Your task to perform on an android device: change the clock display to digital Image 0: 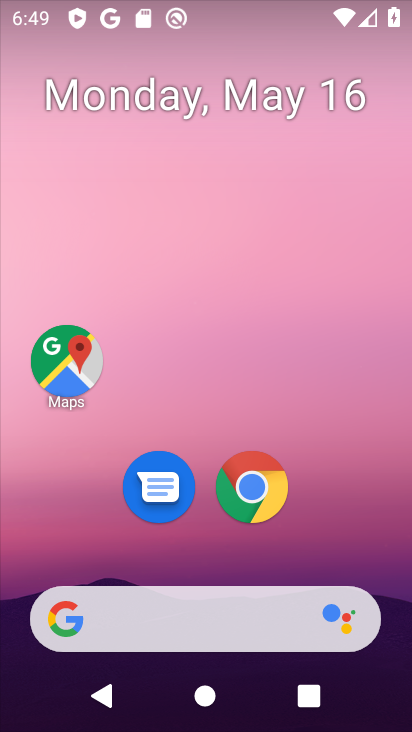
Step 0: drag from (342, 540) to (279, 3)
Your task to perform on an android device: change the clock display to digital Image 1: 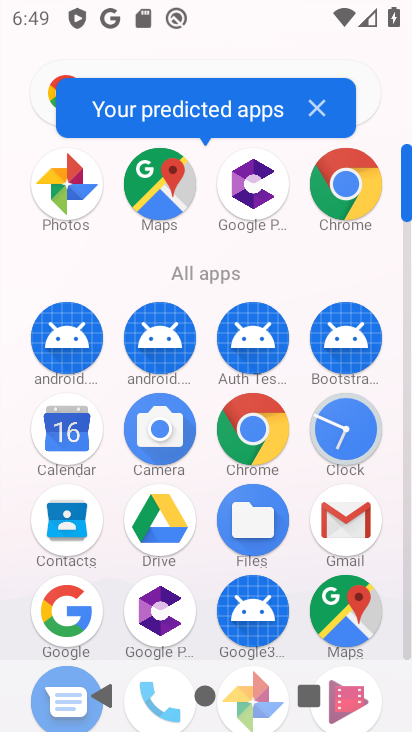
Step 1: click (354, 421)
Your task to perform on an android device: change the clock display to digital Image 2: 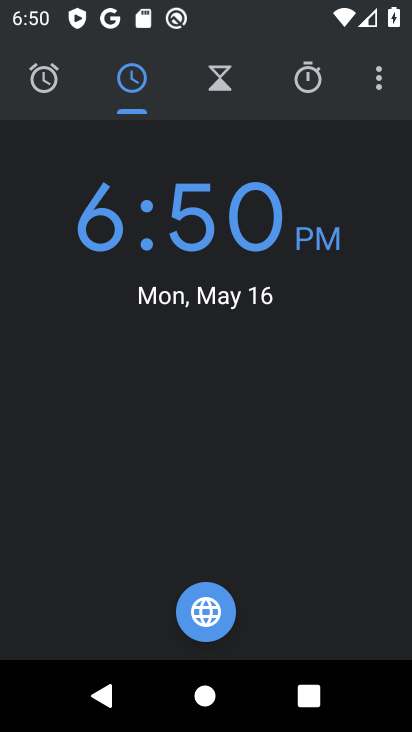
Step 2: click (378, 80)
Your task to perform on an android device: change the clock display to digital Image 3: 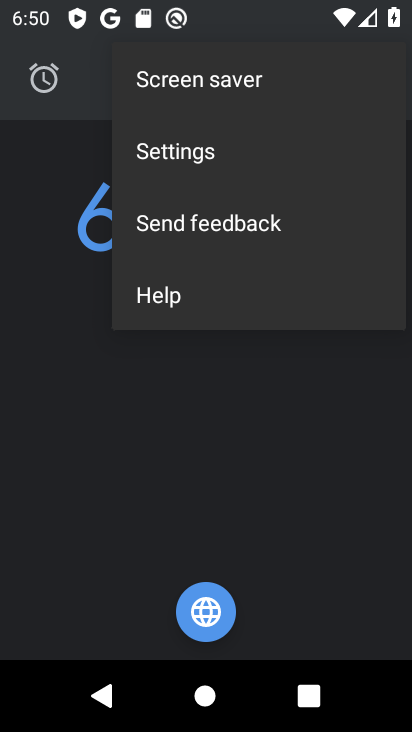
Step 3: click (230, 161)
Your task to perform on an android device: change the clock display to digital Image 4: 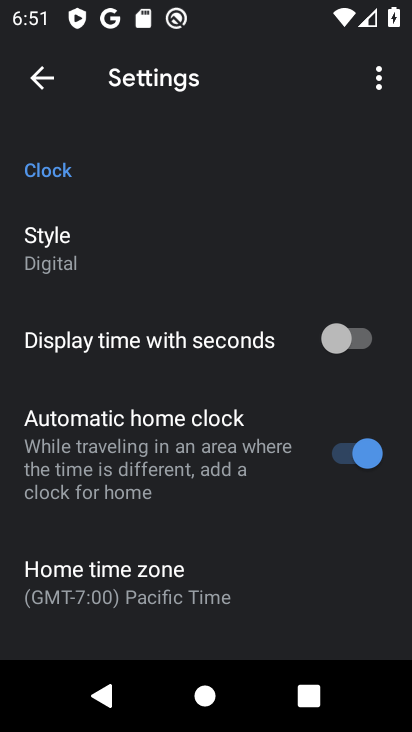
Step 4: task complete